Your task to perform on an android device: Go to Google maps Image 0: 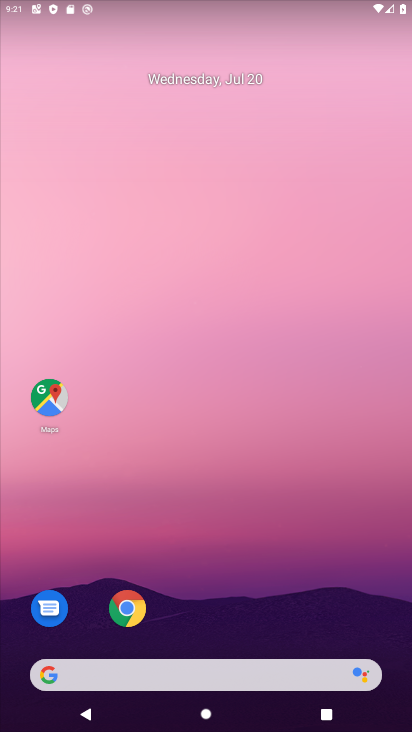
Step 0: click (56, 402)
Your task to perform on an android device: Go to Google maps Image 1: 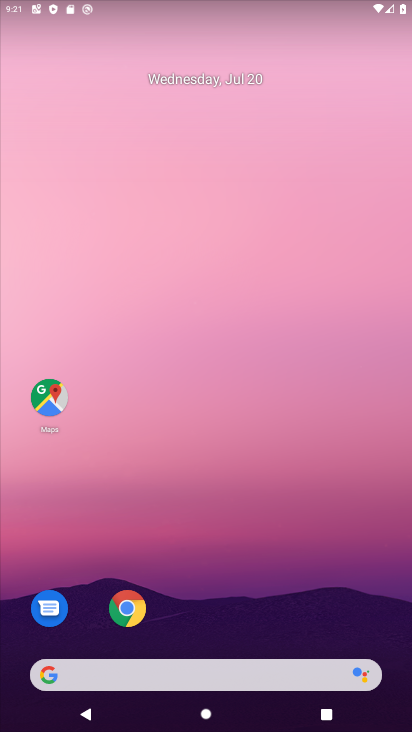
Step 1: click (56, 402)
Your task to perform on an android device: Go to Google maps Image 2: 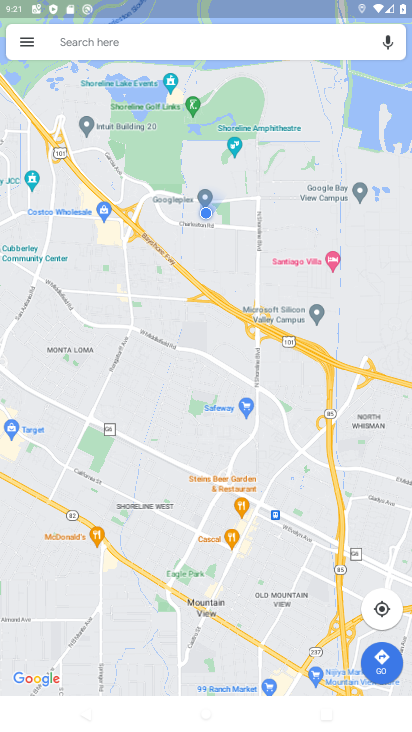
Step 2: click (150, 44)
Your task to perform on an android device: Go to Google maps Image 3: 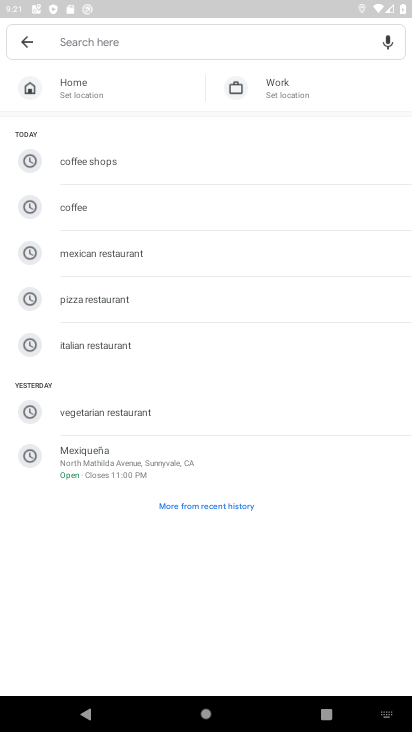
Step 3: click (27, 38)
Your task to perform on an android device: Go to Google maps Image 4: 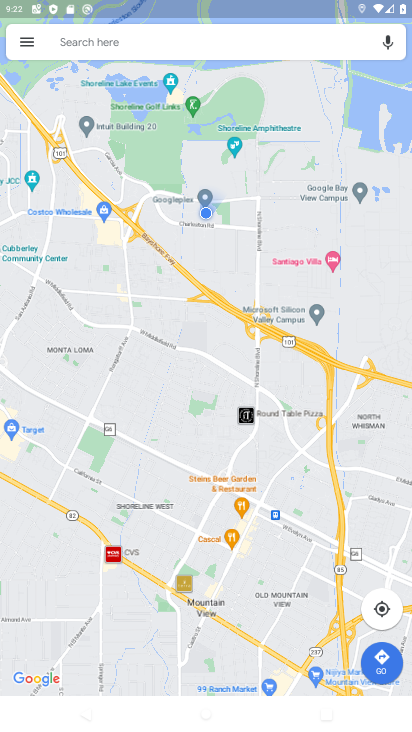
Step 4: click (135, 39)
Your task to perform on an android device: Go to Google maps Image 5: 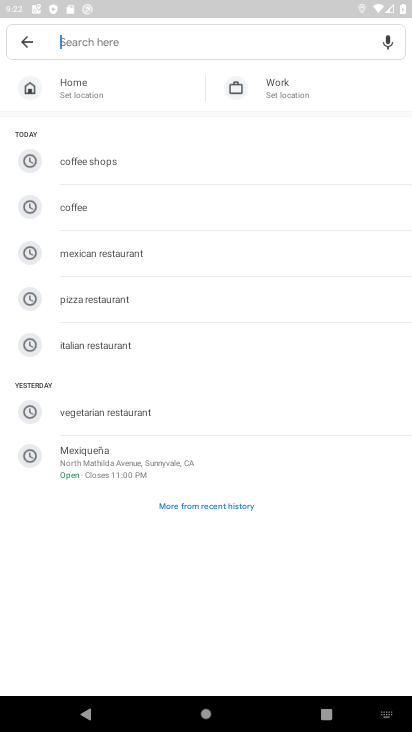
Step 5: click (20, 38)
Your task to perform on an android device: Go to Google maps Image 6: 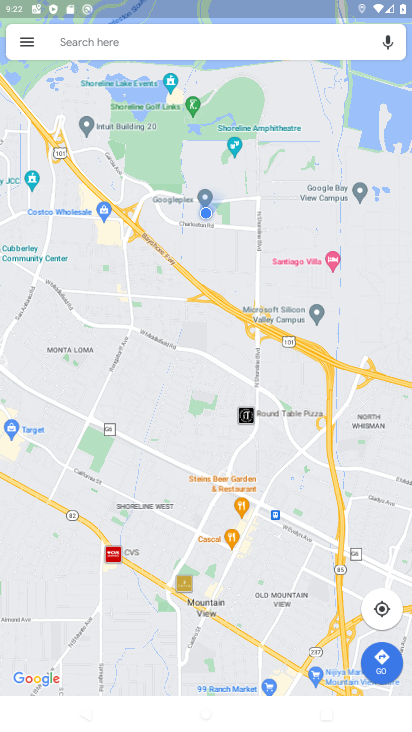
Step 6: task complete